Your task to perform on an android device: Open my contact list Image 0: 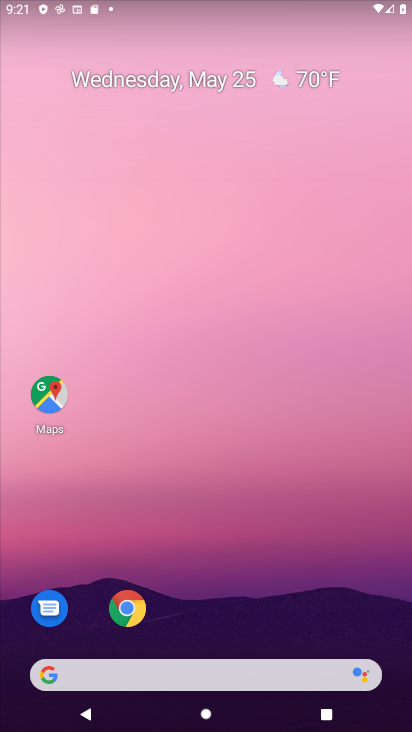
Step 0: drag from (305, 574) to (211, 5)
Your task to perform on an android device: Open my contact list Image 1: 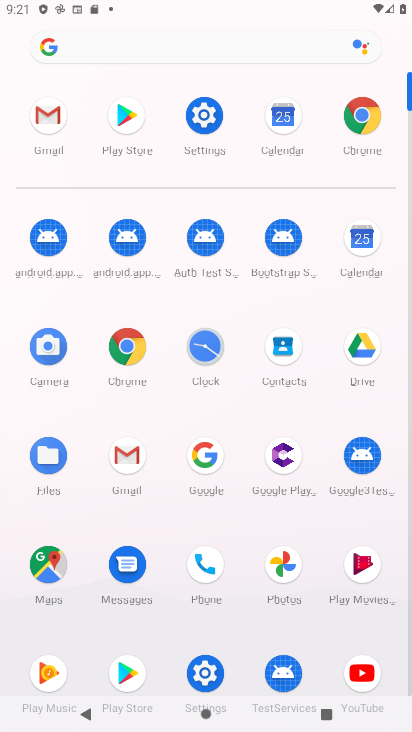
Step 1: click (288, 342)
Your task to perform on an android device: Open my contact list Image 2: 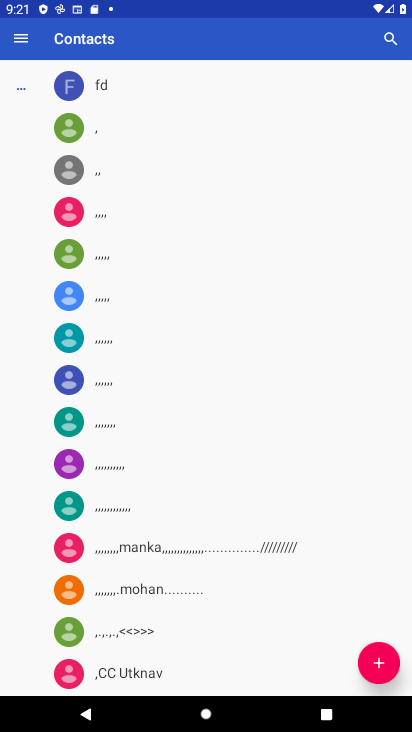
Step 2: task complete